Your task to perform on an android device: Open notification settings Image 0: 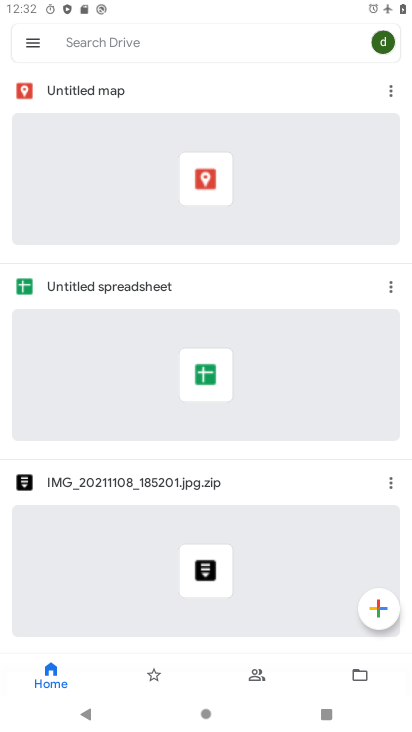
Step 0: press back button
Your task to perform on an android device: Open notification settings Image 1: 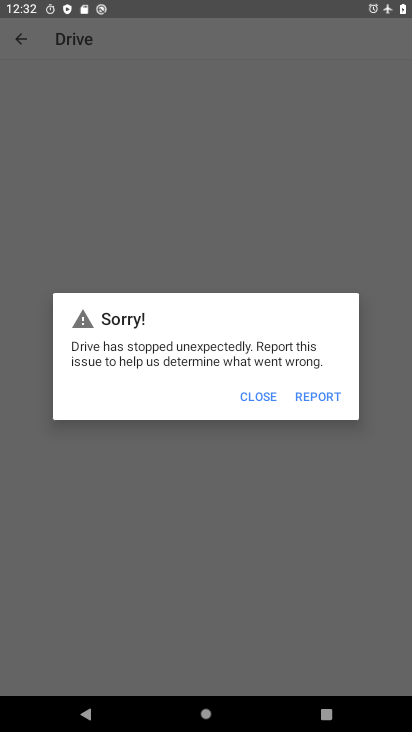
Step 1: press home button
Your task to perform on an android device: Open notification settings Image 2: 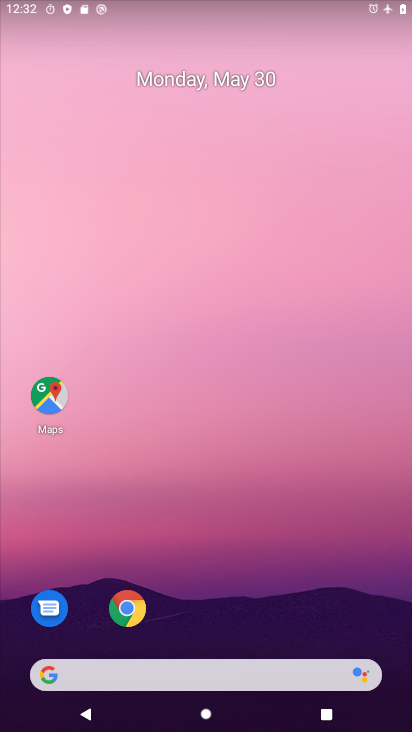
Step 2: drag from (203, 657) to (229, 24)
Your task to perform on an android device: Open notification settings Image 3: 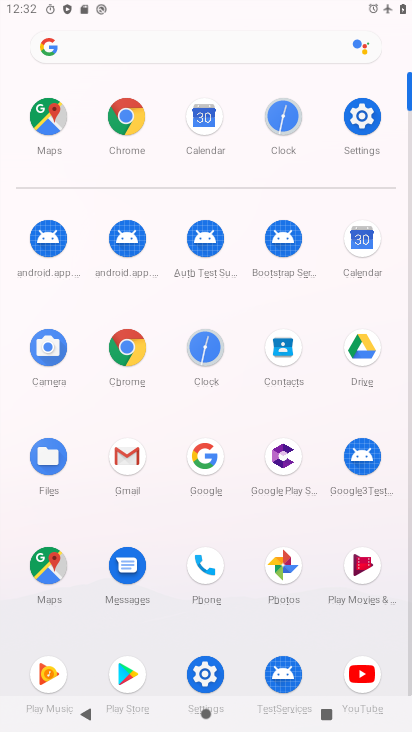
Step 3: click (199, 668)
Your task to perform on an android device: Open notification settings Image 4: 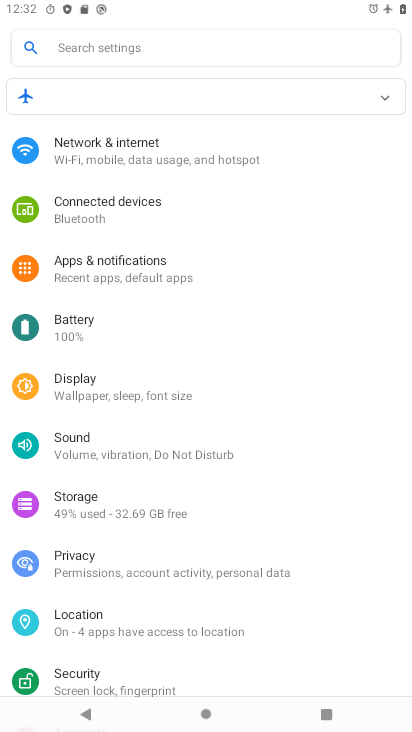
Step 4: click (108, 264)
Your task to perform on an android device: Open notification settings Image 5: 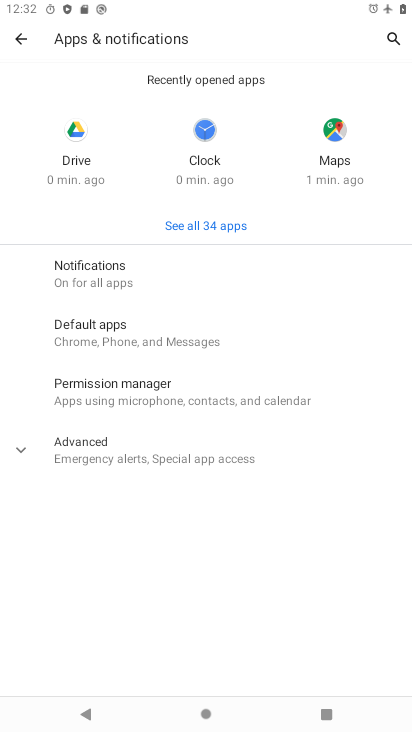
Step 5: click (75, 260)
Your task to perform on an android device: Open notification settings Image 6: 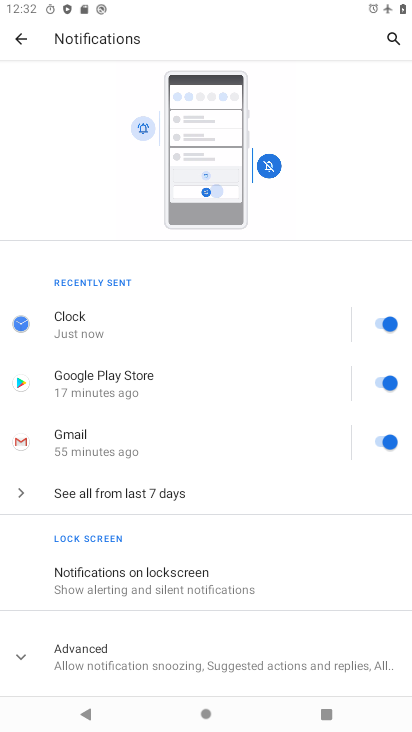
Step 6: task complete